Your task to perform on an android device: Open calendar and show me the second week of next month Image 0: 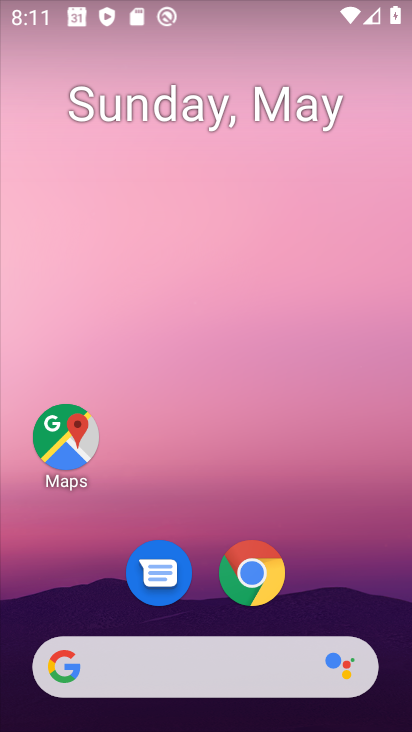
Step 0: drag from (381, 617) to (317, 131)
Your task to perform on an android device: Open calendar and show me the second week of next month Image 1: 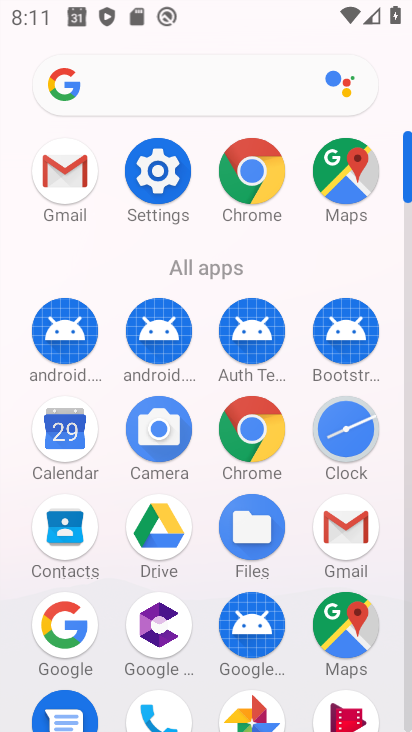
Step 1: click (38, 446)
Your task to perform on an android device: Open calendar and show me the second week of next month Image 2: 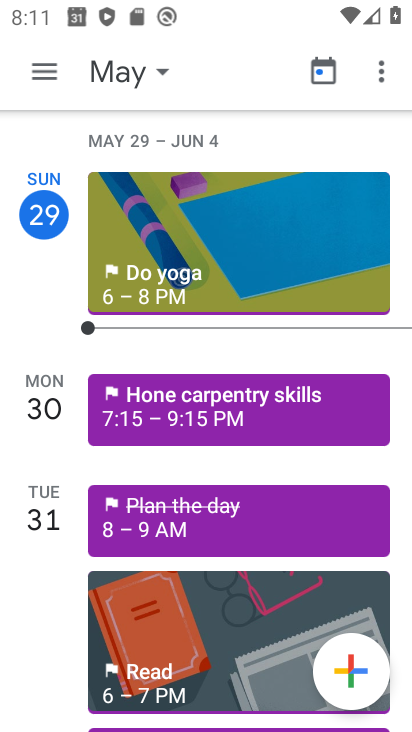
Step 2: click (59, 69)
Your task to perform on an android device: Open calendar and show me the second week of next month Image 3: 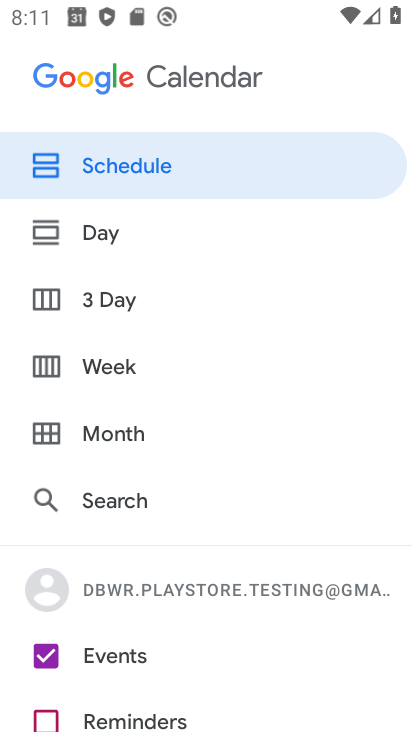
Step 3: click (93, 377)
Your task to perform on an android device: Open calendar and show me the second week of next month Image 4: 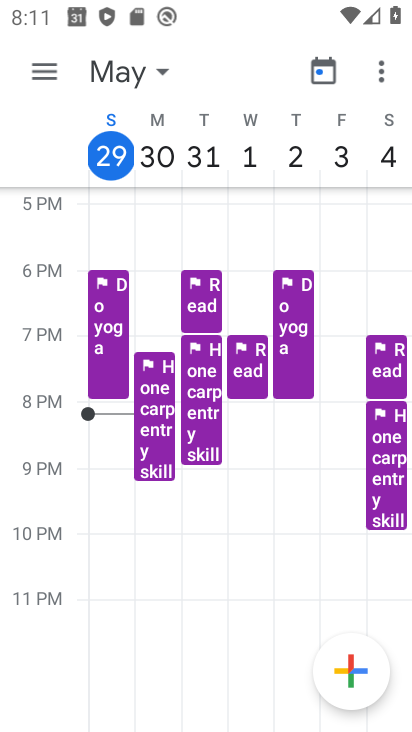
Step 4: click (153, 77)
Your task to perform on an android device: Open calendar and show me the second week of next month Image 5: 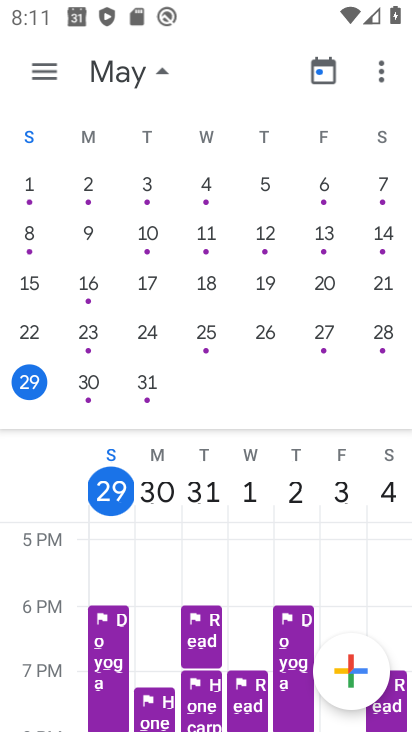
Step 5: drag from (386, 300) to (22, 234)
Your task to perform on an android device: Open calendar and show me the second week of next month Image 6: 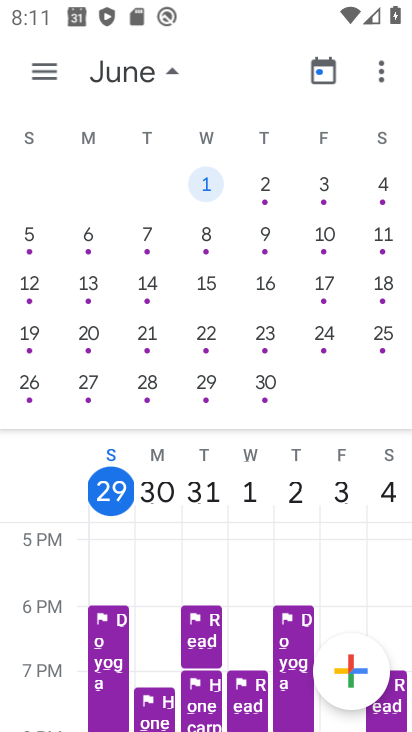
Step 6: click (136, 244)
Your task to perform on an android device: Open calendar and show me the second week of next month Image 7: 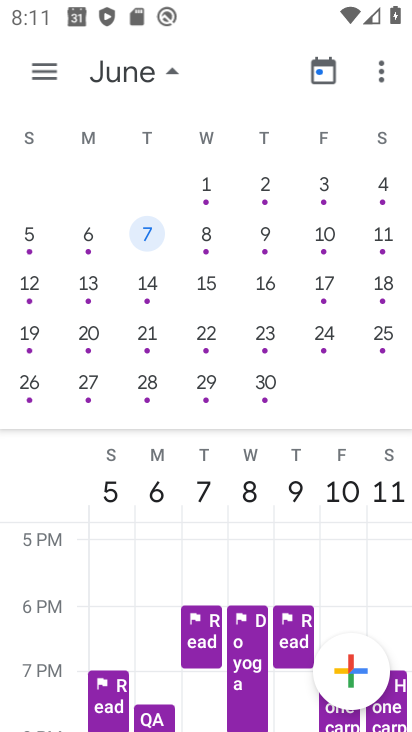
Step 7: task complete